Your task to perform on an android device: turn smart compose on in the gmail app Image 0: 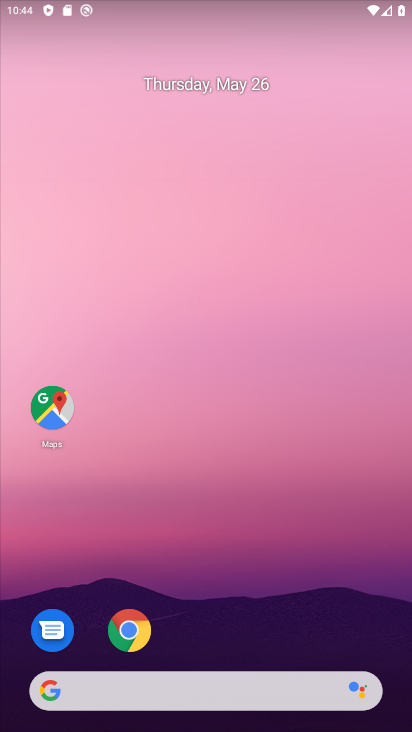
Step 0: drag from (241, 596) to (230, 141)
Your task to perform on an android device: turn smart compose on in the gmail app Image 1: 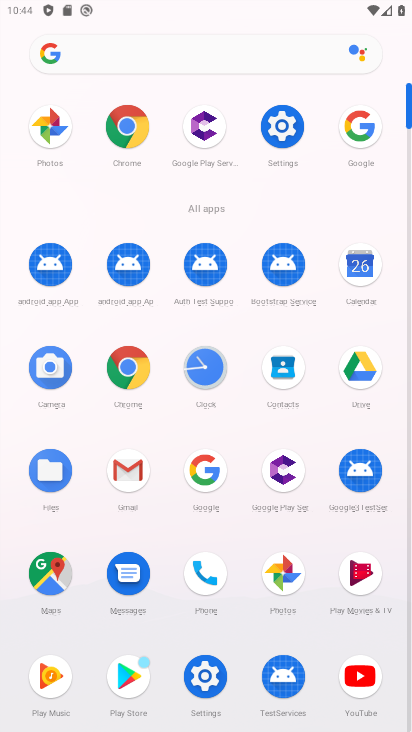
Step 1: click (126, 466)
Your task to perform on an android device: turn smart compose on in the gmail app Image 2: 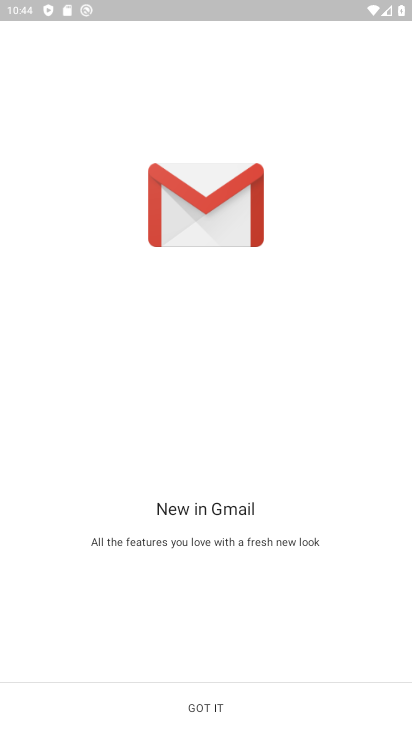
Step 2: click (206, 704)
Your task to perform on an android device: turn smart compose on in the gmail app Image 3: 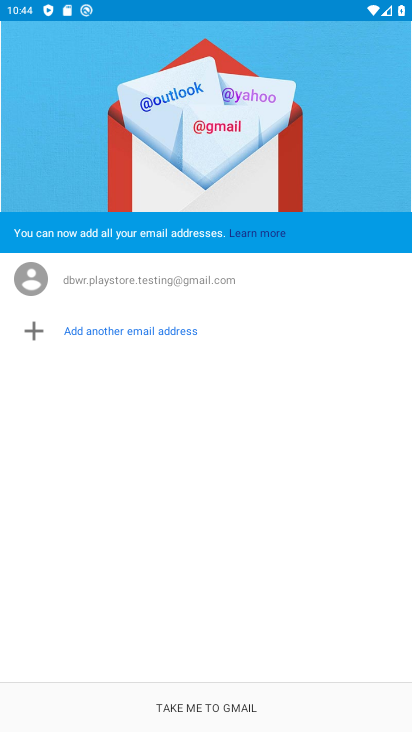
Step 3: click (206, 704)
Your task to perform on an android device: turn smart compose on in the gmail app Image 4: 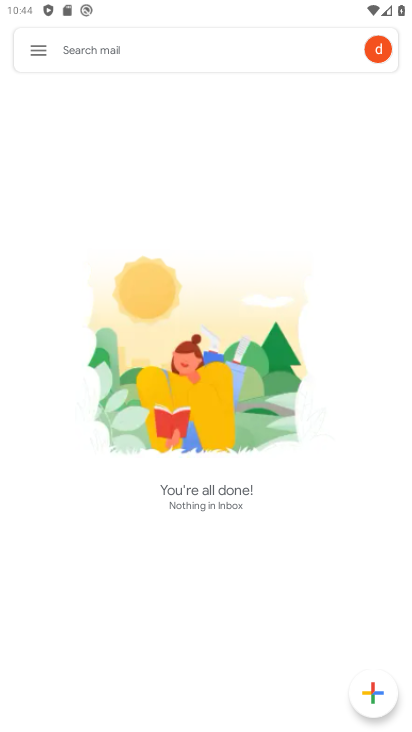
Step 4: click (37, 50)
Your task to perform on an android device: turn smart compose on in the gmail app Image 5: 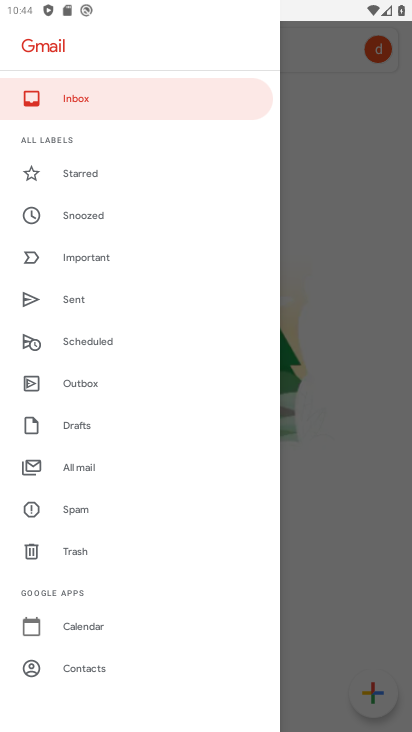
Step 5: drag from (80, 609) to (155, 528)
Your task to perform on an android device: turn smart compose on in the gmail app Image 6: 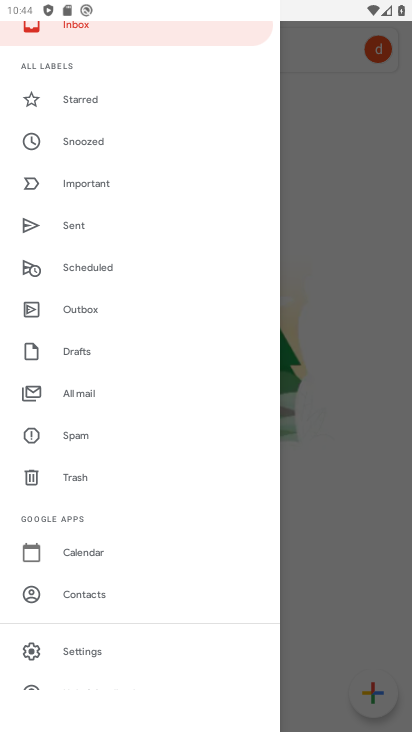
Step 6: click (97, 653)
Your task to perform on an android device: turn smart compose on in the gmail app Image 7: 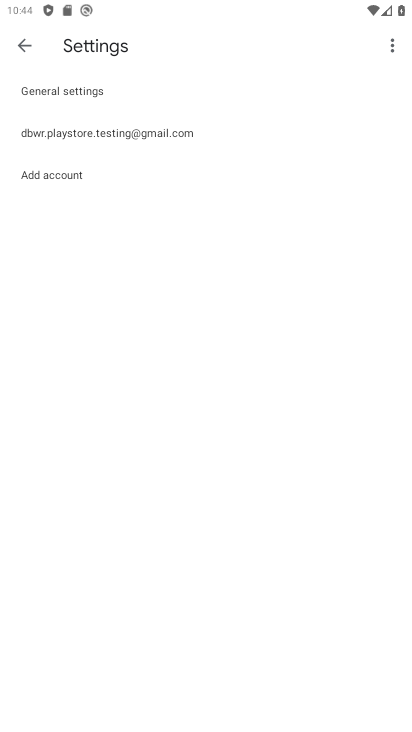
Step 7: click (124, 138)
Your task to perform on an android device: turn smart compose on in the gmail app Image 8: 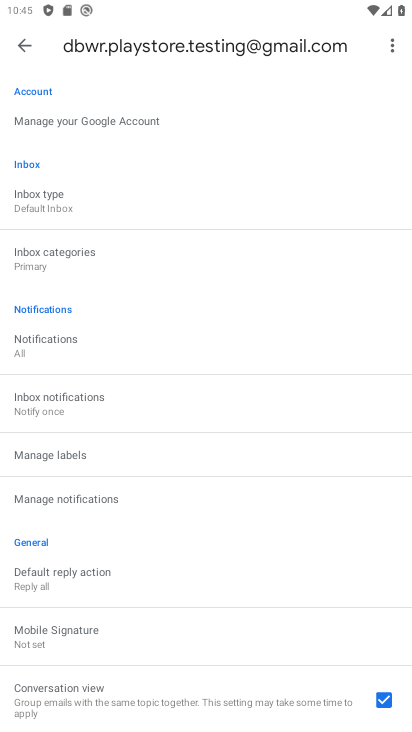
Step 8: task complete